Your task to perform on an android device: turn off smart reply in the gmail app Image 0: 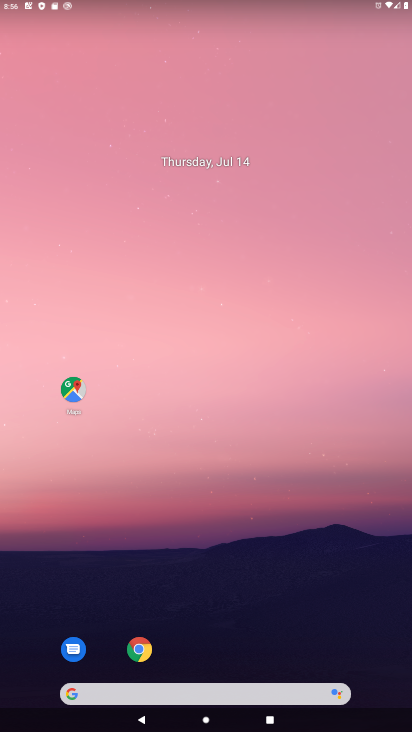
Step 0: drag from (168, 651) to (215, 4)
Your task to perform on an android device: turn off smart reply in the gmail app Image 1: 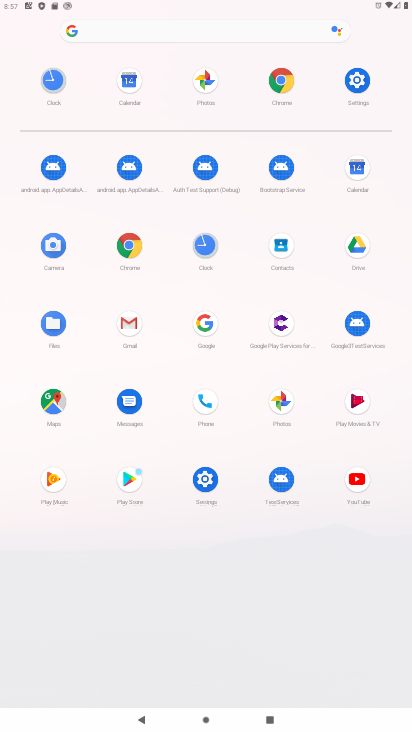
Step 1: click (121, 337)
Your task to perform on an android device: turn off smart reply in the gmail app Image 2: 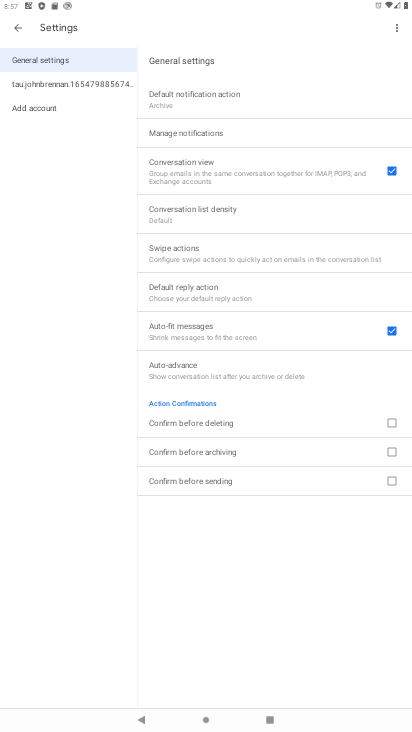
Step 2: click (52, 82)
Your task to perform on an android device: turn off smart reply in the gmail app Image 3: 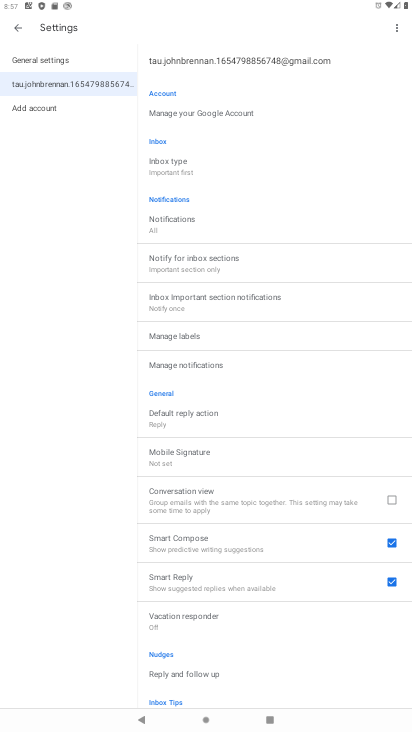
Step 3: click (398, 581)
Your task to perform on an android device: turn off smart reply in the gmail app Image 4: 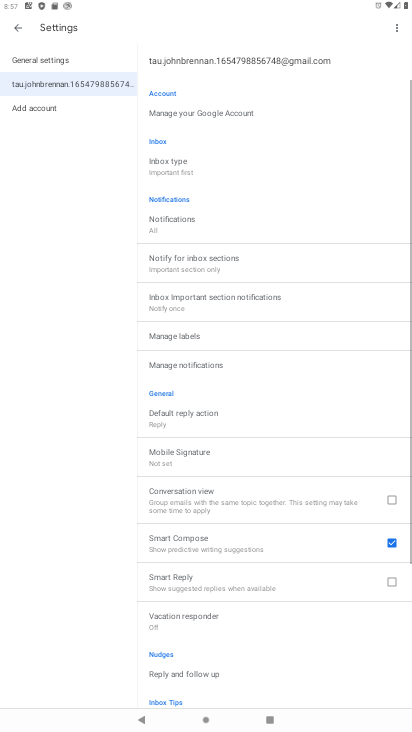
Step 4: task complete